Your task to perform on an android device: turn on bluetooth scan Image 0: 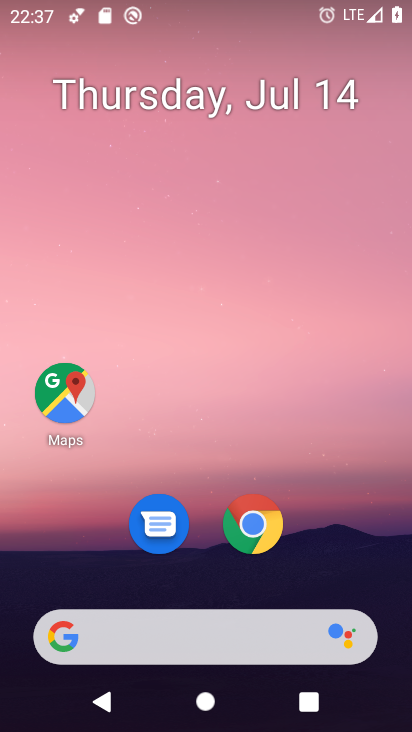
Step 0: drag from (212, 461) to (239, 0)
Your task to perform on an android device: turn on bluetooth scan Image 1: 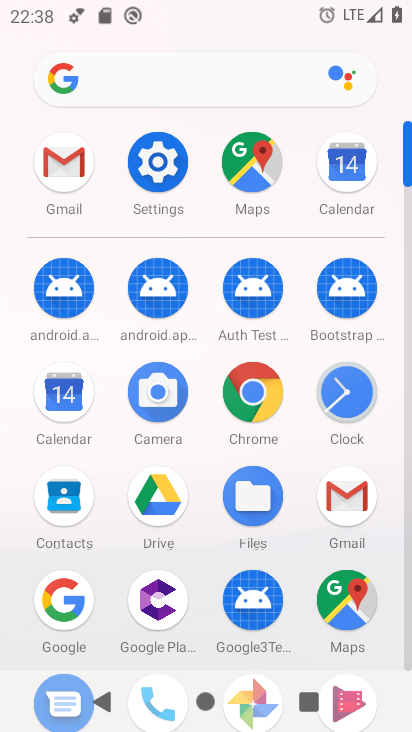
Step 1: click (166, 163)
Your task to perform on an android device: turn on bluetooth scan Image 2: 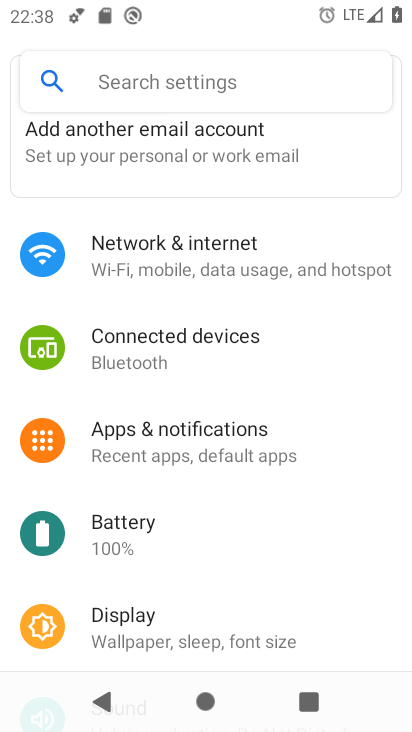
Step 2: drag from (194, 574) to (207, 120)
Your task to perform on an android device: turn on bluetooth scan Image 3: 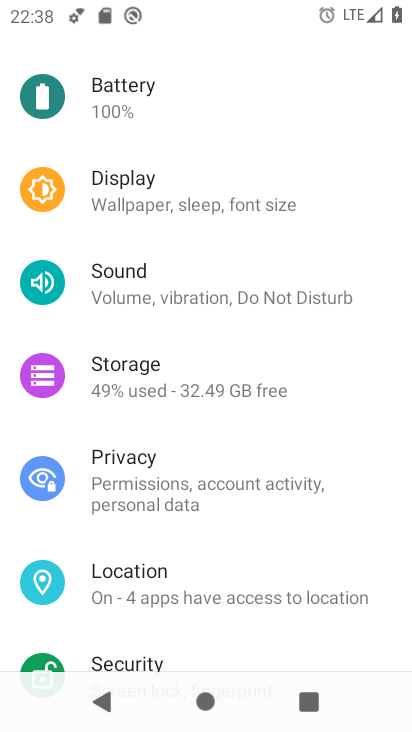
Step 3: click (222, 588)
Your task to perform on an android device: turn on bluetooth scan Image 4: 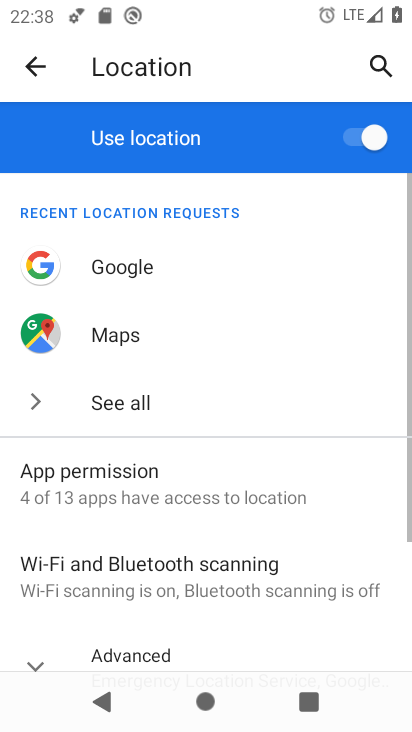
Step 4: drag from (259, 369) to (286, 148)
Your task to perform on an android device: turn on bluetooth scan Image 5: 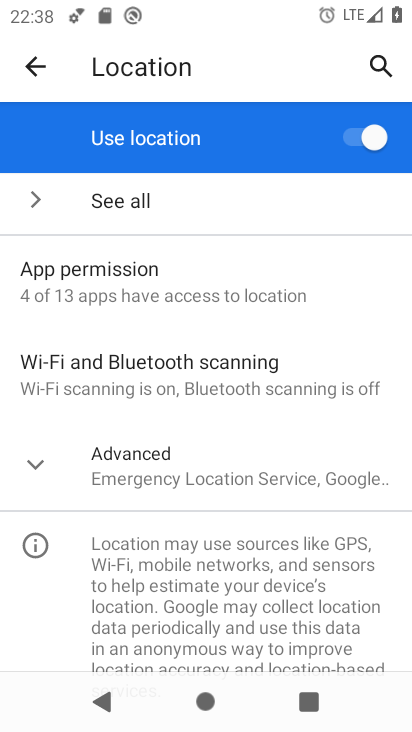
Step 5: click (158, 353)
Your task to perform on an android device: turn on bluetooth scan Image 6: 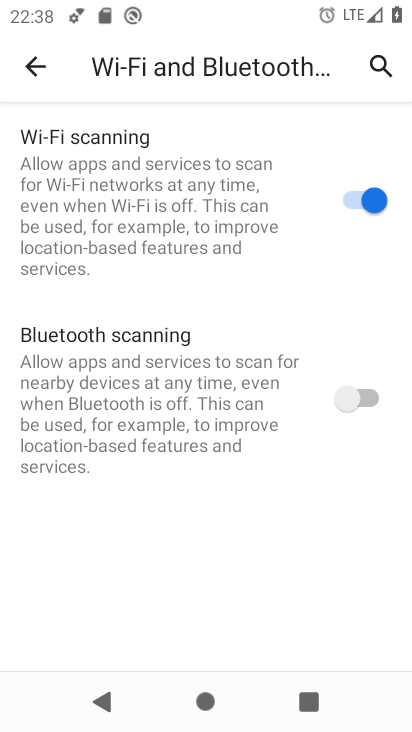
Step 6: click (361, 400)
Your task to perform on an android device: turn on bluetooth scan Image 7: 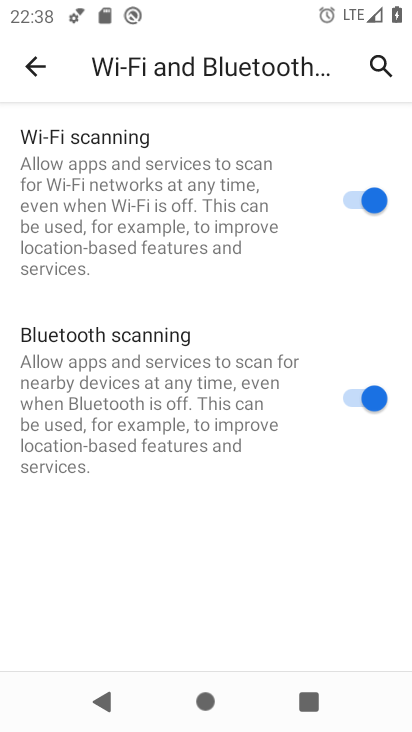
Step 7: task complete